Your task to perform on an android device: What's the weather today? Image 0: 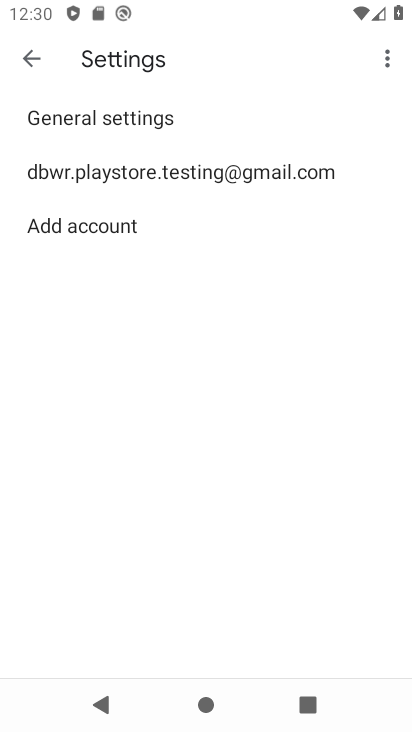
Step 0: press home button
Your task to perform on an android device: What's the weather today? Image 1: 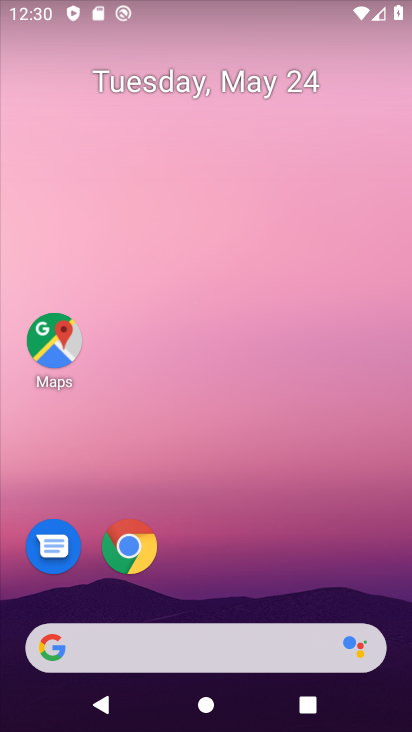
Step 1: click (135, 640)
Your task to perform on an android device: What's the weather today? Image 2: 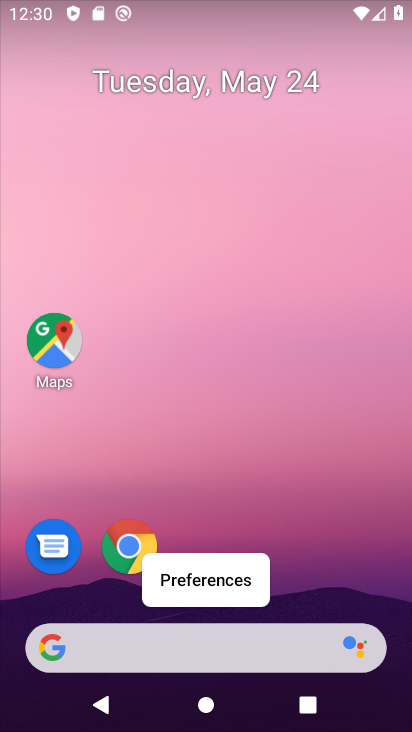
Step 2: click (168, 656)
Your task to perform on an android device: What's the weather today? Image 3: 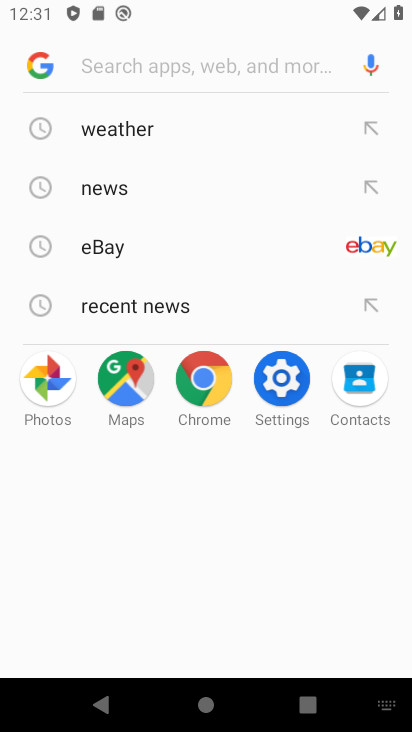
Step 3: type "what's the weather today "
Your task to perform on an android device: What's the weather today? Image 4: 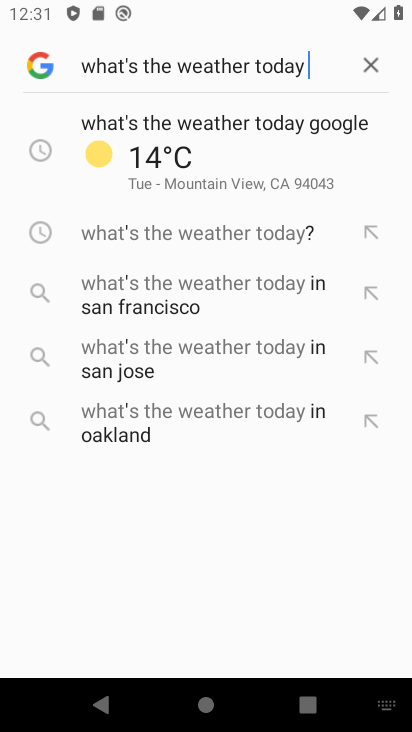
Step 4: click (122, 166)
Your task to perform on an android device: What's the weather today? Image 5: 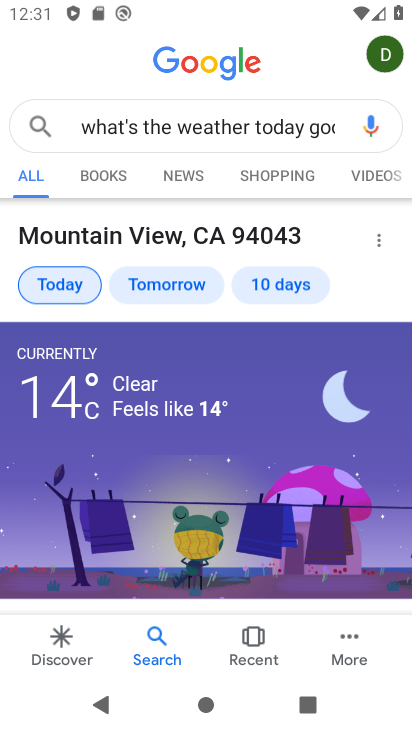
Step 5: task complete